Your task to perform on an android device: toggle translation in the chrome app Image 0: 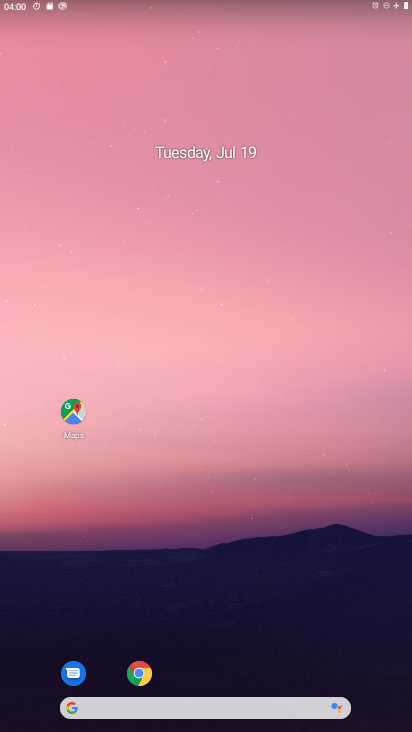
Step 0: drag from (237, 670) to (210, 203)
Your task to perform on an android device: toggle translation in the chrome app Image 1: 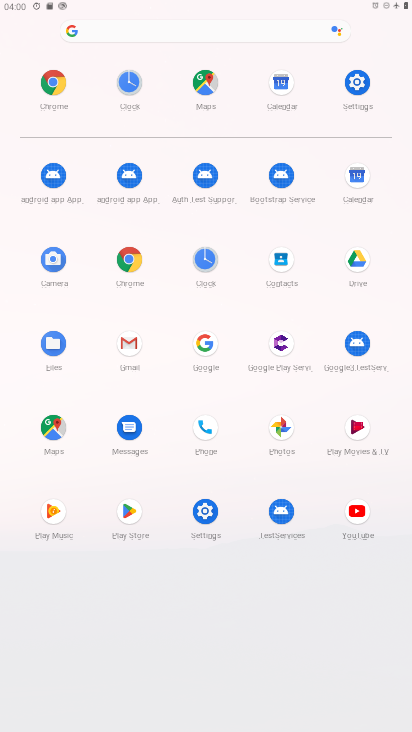
Step 1: click (131, 276)
Your task to perform on an android device: toggle translation in the chrome app Image 2: 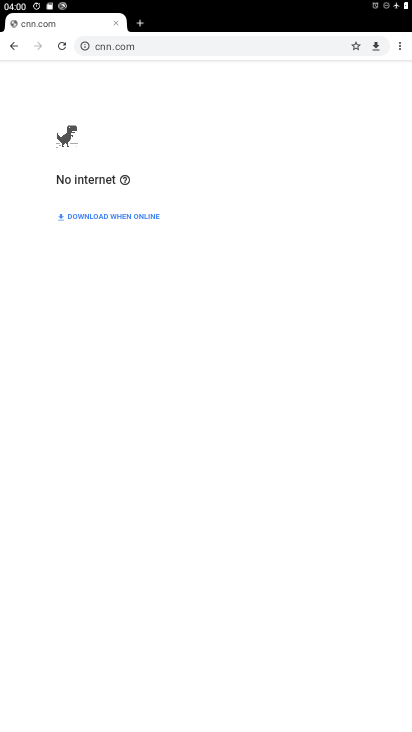
Step 2: click (401, 46)
Your task to perform on an android device: toggle translation in the chrome app Image 3: 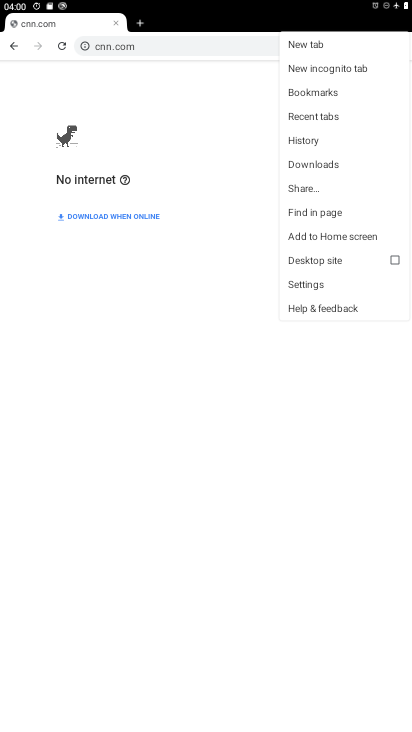
Step 3: click (300, 282)
Your task to perform on an android device: toggle translation in the chrome app Image 4: 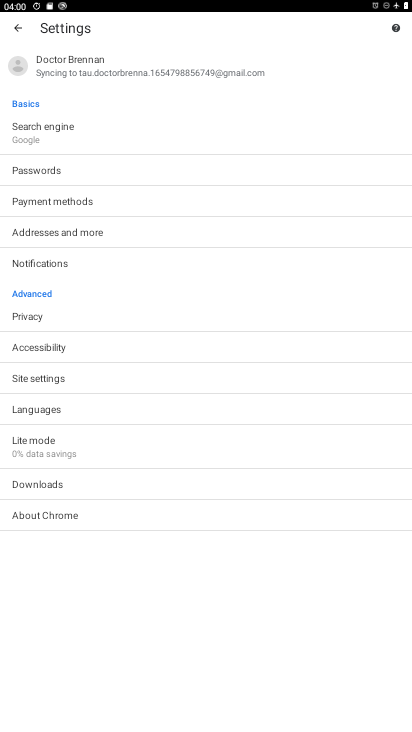
Step 4: click (72, 407)
Your task to perform on an android device: toggle translation in the chrome app Image 5: 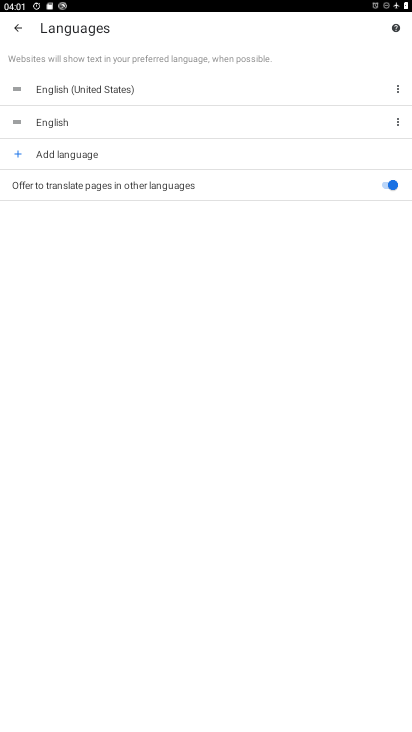
Step 5: click (365, 191)
Your task to perform on an android device: toggle translation in the chrome app Image 6: 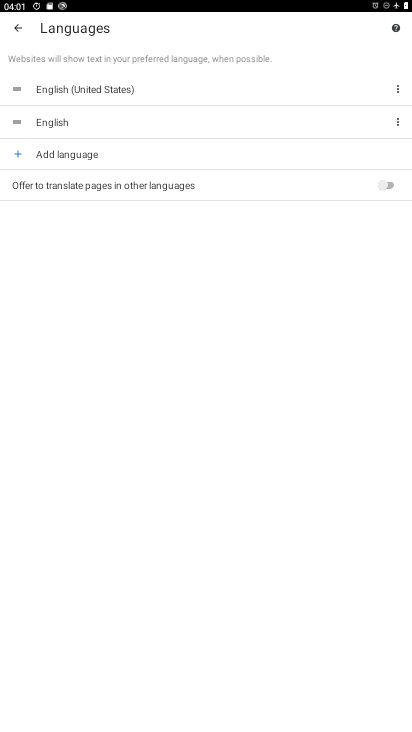
Step 6: task complete